Your task to perform on an android device: find which apps use the phone's location Image 0: 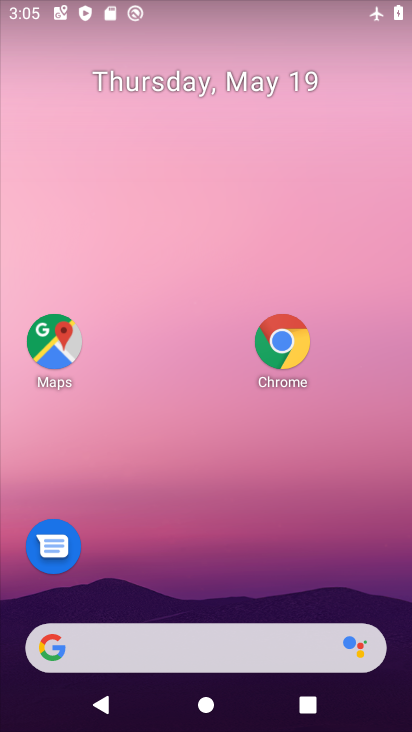
Step 0: press home button
Your task to perform on an android device: find which apps use the phone's location Image 1: 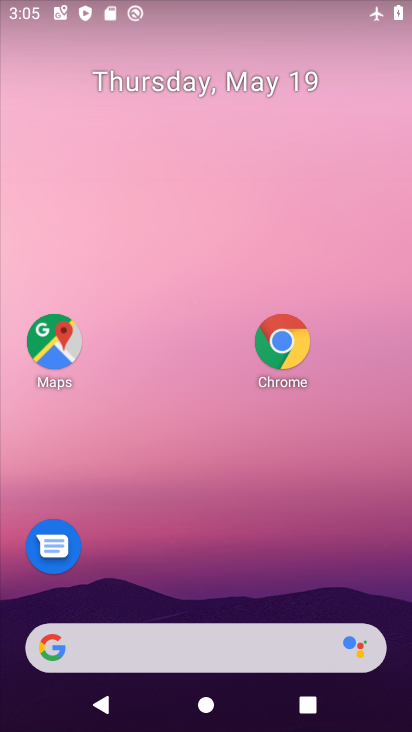
Step 1: drag from (144, 655) to (269, 287)
Your task to perform on an android device: find which apps use the phone's location Image 2: 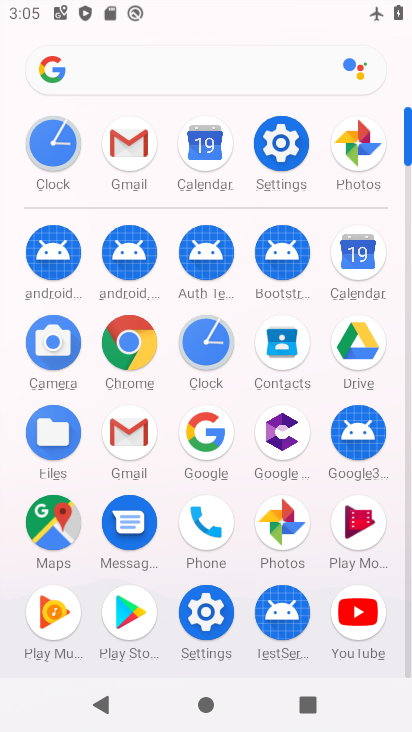
Step 2: click (288, 155)
Your task to perform on an android device: find which apps use the phone's location Image 3: 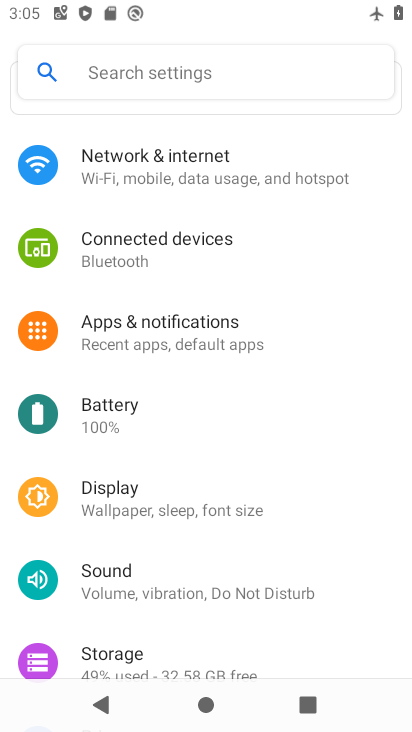
Step 3: drag from (211, 536) to (331, 214)
Your task to perform on an android device: find which apps use the phone's location Image 4: 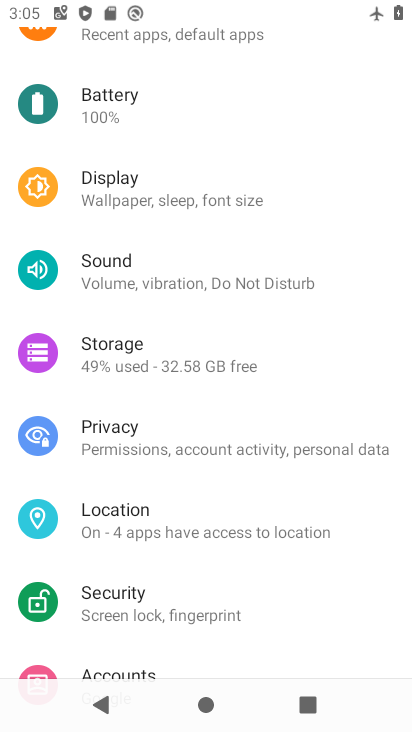
Step 4: click (148, 523)
Your task to perform on an android device: find which apps use the phone's location Image 5: 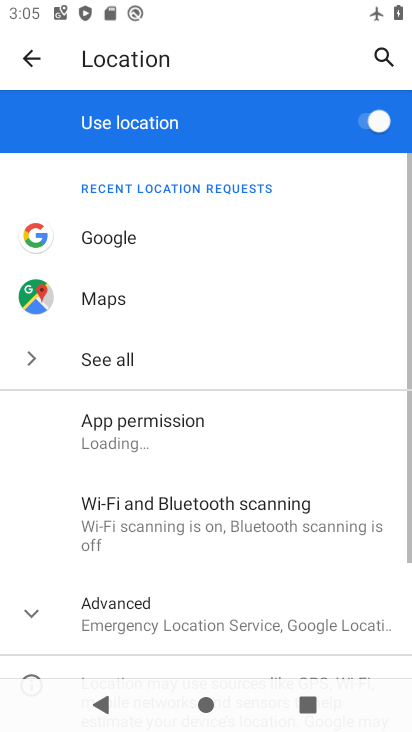
Step 5: drag from (240, 598) to (357, 194)
Your task to perform on an android device: find which apps use the phone's location Image 6: 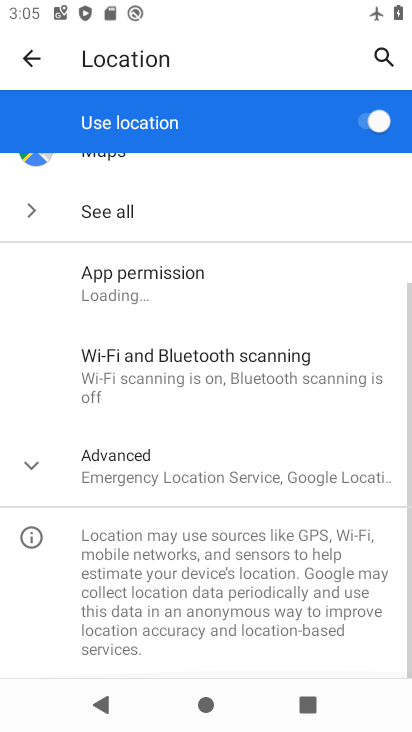
Step 6: click (153, 473)
Your task to perform on an android device: find which apps use the phone's location Image 7: 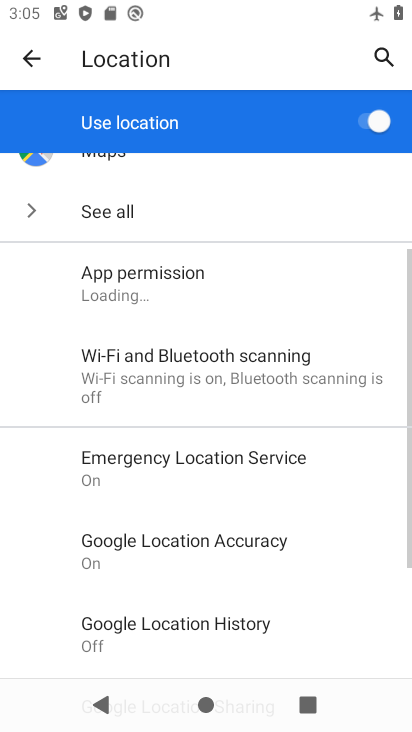
Step 7: click (150, 283)
Your task to perform on an android device: find which apps use the phone's location Image 8: 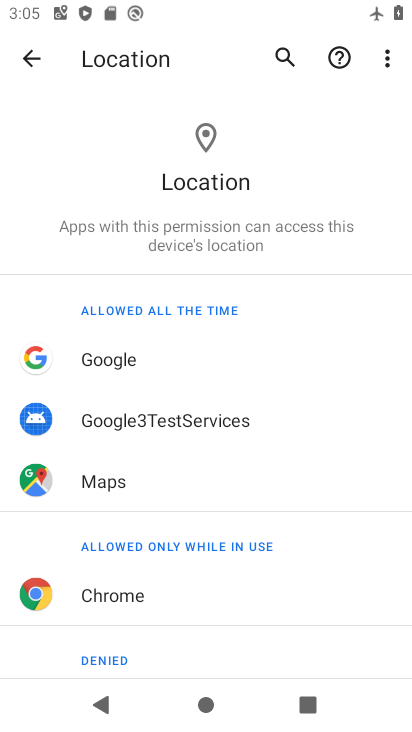
Step 8: drag from (279, 610) to (380, 152)
Your task to perform on an android device: find which apps use the phone's location Image 9: 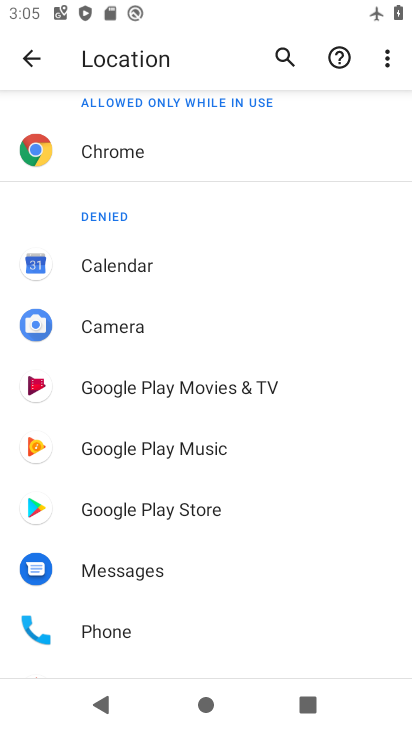
Step 9: click (125, 634)
Your task to perform on an android device: find which apps use the phone's location Image 10: 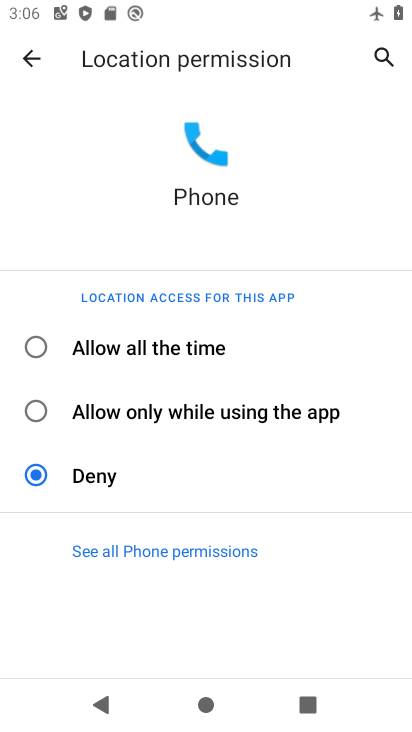
Step 10: task complete